Your task to perform on an android device: toggle notification dots Image 0: 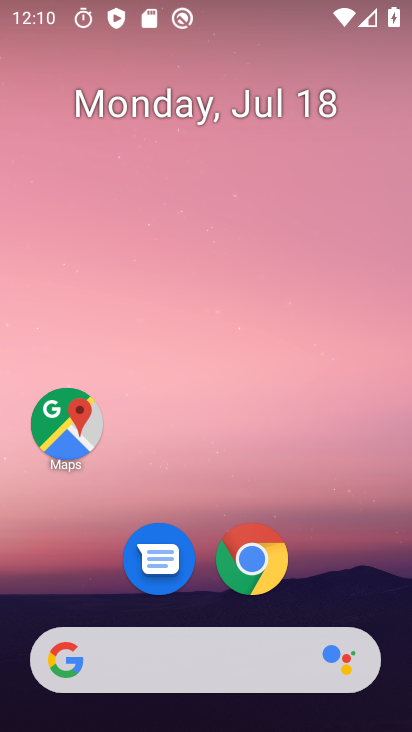
Step 0: drag from (187, 600) to (250, 7)
Your task to perform on an android device: toggle notification dots Image 1: 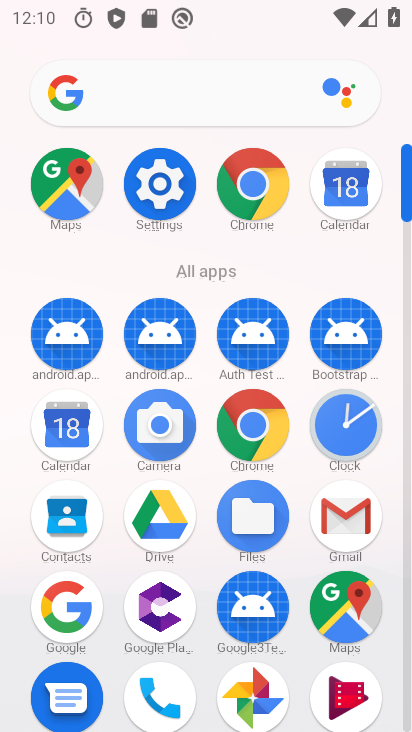
Step 1: click (153, 171)
Your task to perform on an android device: toggle notification dots Image 2: 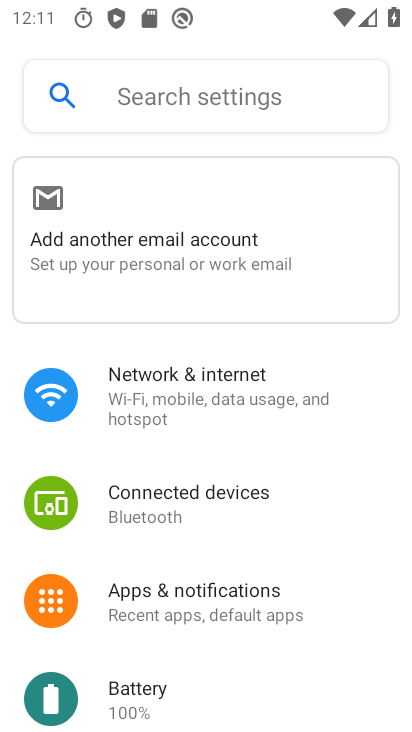
Step 2: click (152, 625)
Your task to perform on an android device: toggle notification dots Image 3: 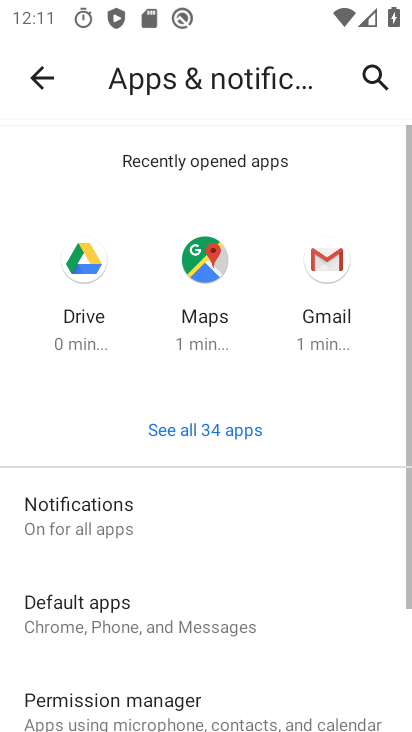
Step 3: click (175, 514)
Your task to perform on an android device: toggle notification dots Image 4: 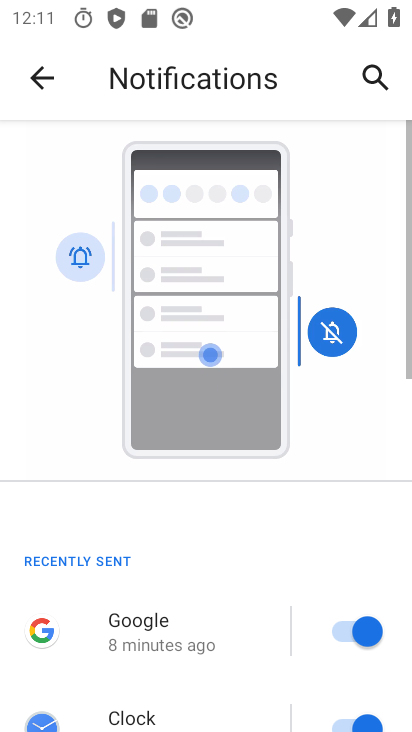
Step 4: drag from (143, 653) to (188, 30)
Your task to perform on an android device: toggle notification dots Image 5: 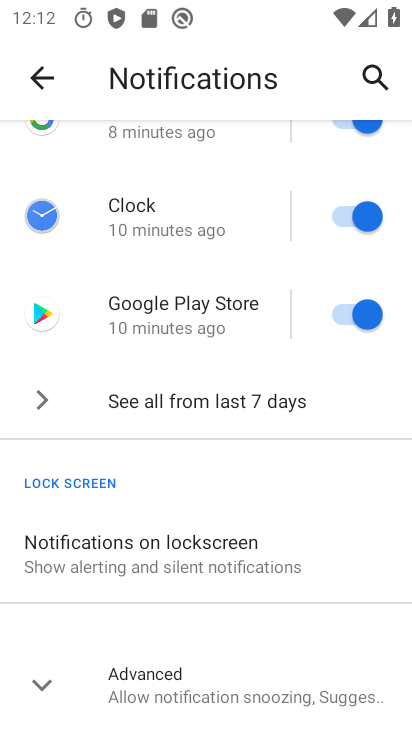
Step 5: click (157, 687)
Your task to perform on an android device: toggle notification dots Image 6: 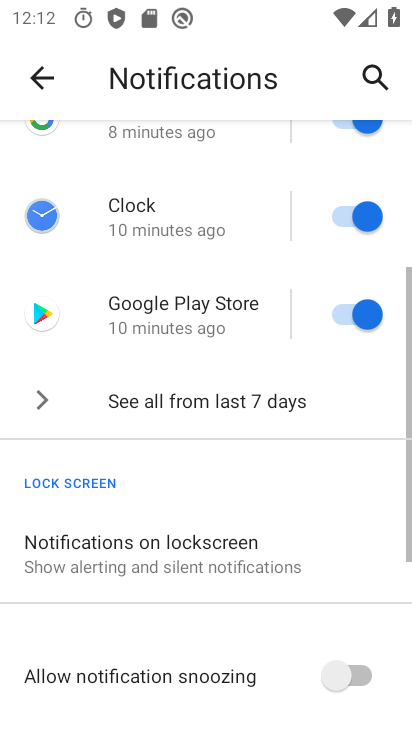
Step 6: drag from (165, 688) to (240, 181)
Your task to perform on an android device: toggle notification dots Image 7: 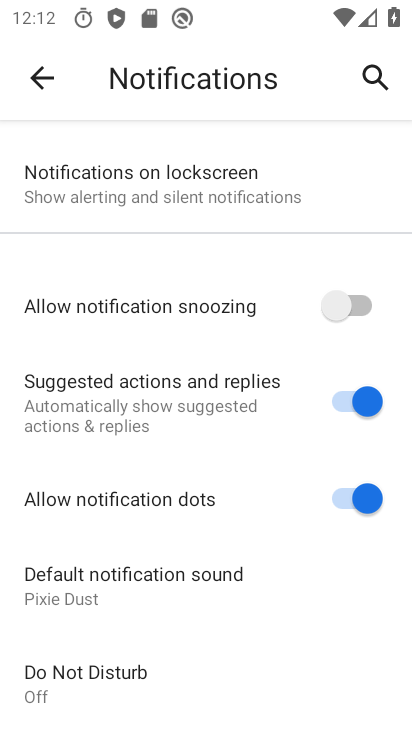
Step 7: click (361, 496)
Your task to perform on an android device: toggle notification dots Image 8: 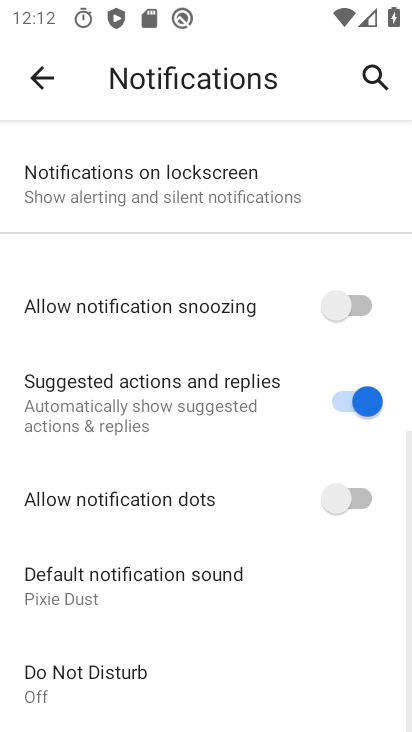
Step 8: task complete